Your task to perform on an android device: Show me the alarms in the clock app Image 0: 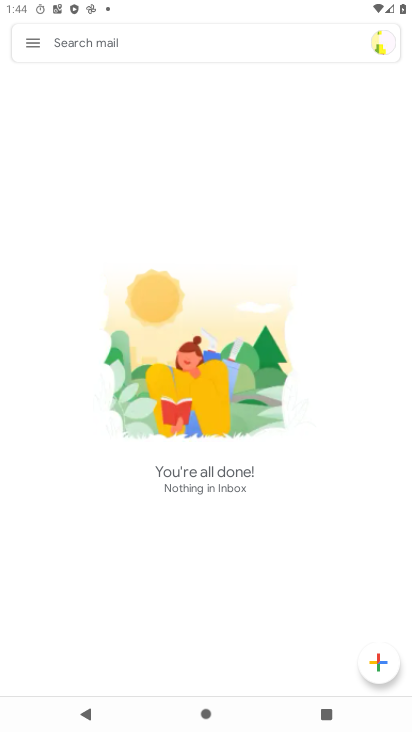
Step 0: press home button
Your task to perform on an android device: Show me the alarms in the clock app Image 1: 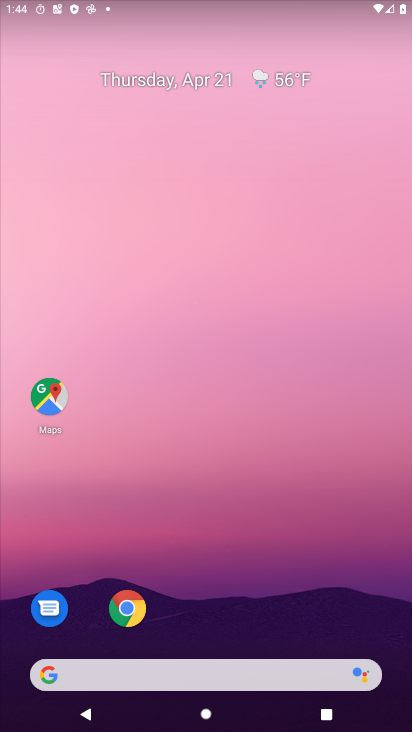
Step 1: drag from (295, 522) to (336, 23)
Your task to perform on an android device: Show me the alarms in the clock app Image 2: 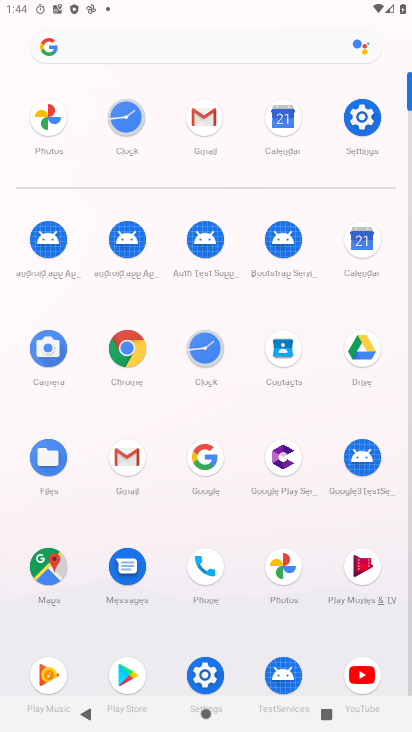
Step 2: click (126, 114)
Your task to perform on an android device: Show me the alarms in the clock app Image 3: 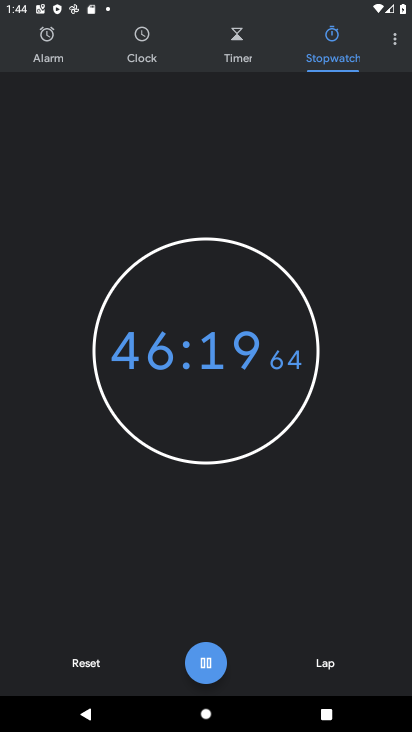
Step 3: click (56, 43)
Your task to perform on an android device: Show me the alarms in the clock app Image 4: 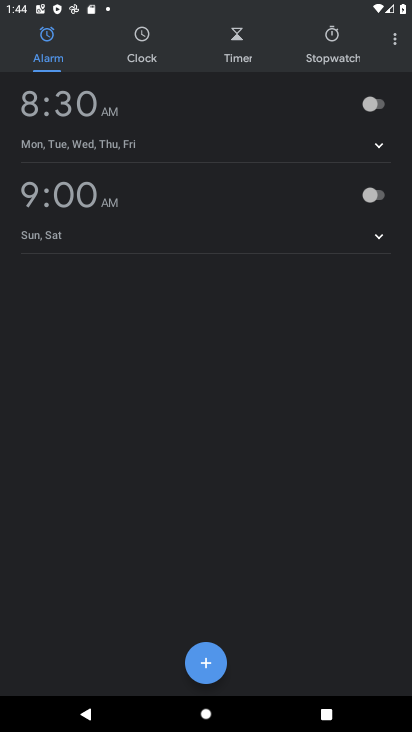
Step 4: task complete